Your task to perform on an android device: star an email in the gmail app Image 0: 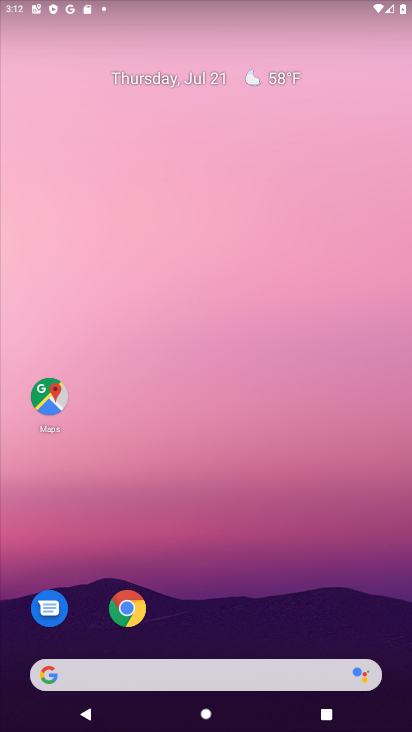
Step 0: drag from (216, 640) to (232, 113)
Your task to perform on an android device: star an email in the gmail app Image 1: 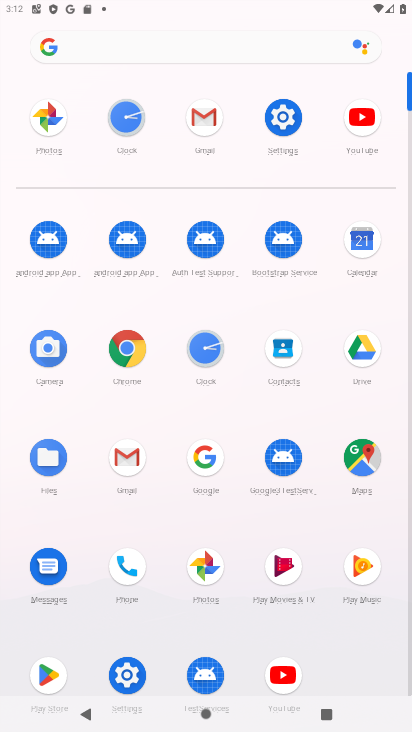
Step 1: click (124, 453)
Your task to perform on an android device: star an email in the gmail app Image 2: 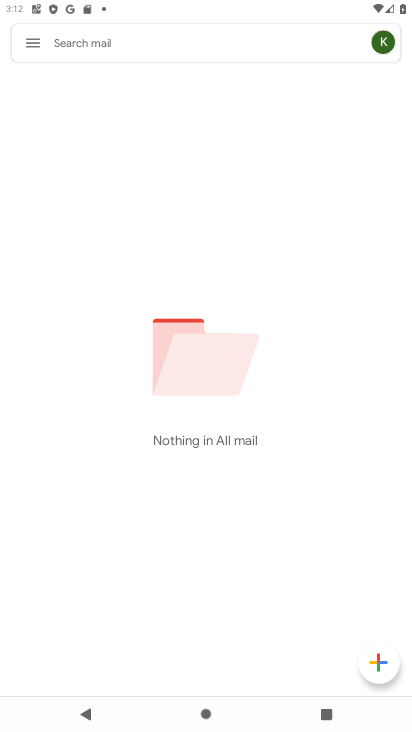
Step 2: task complete